Your task to perform on an android device: Open the map Image 0: 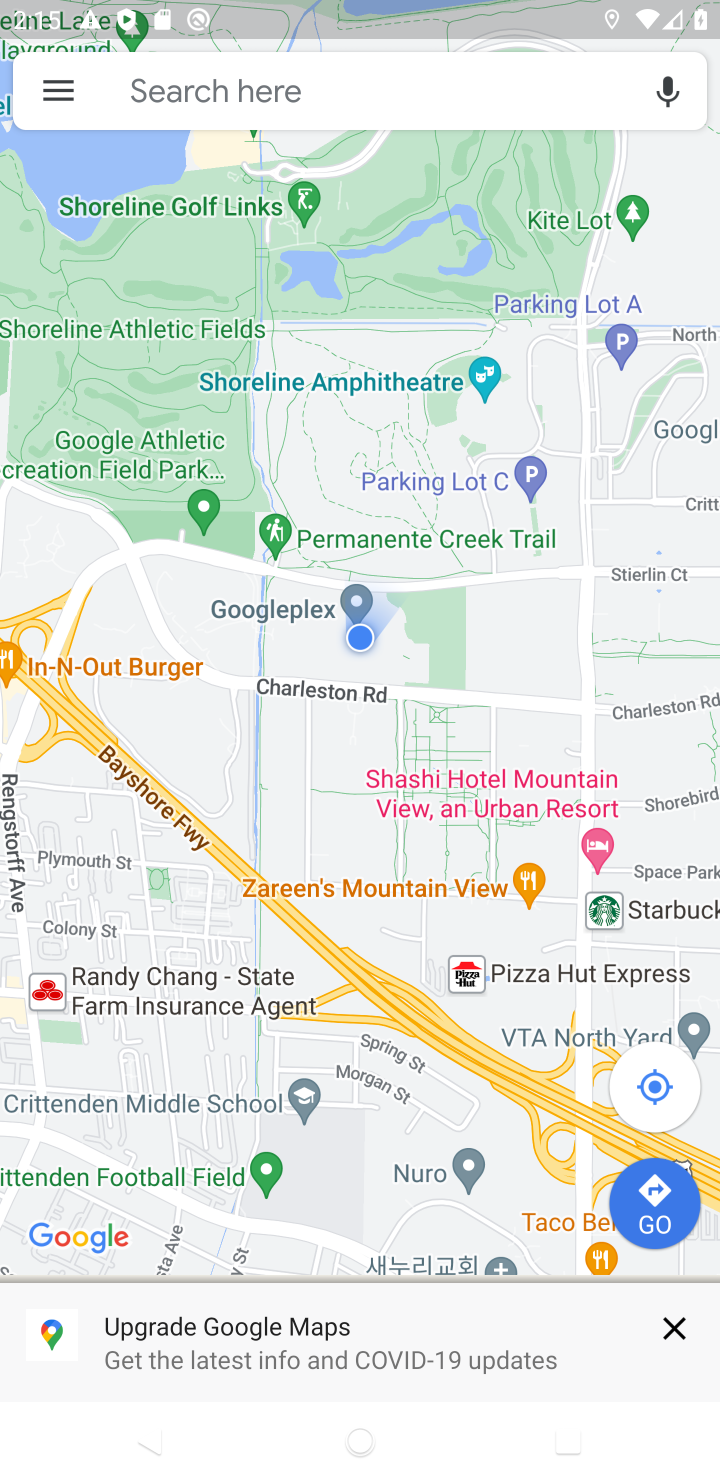
Step 0: click (391, 782)
Your task to perform on an android device: Open the map Image 1: 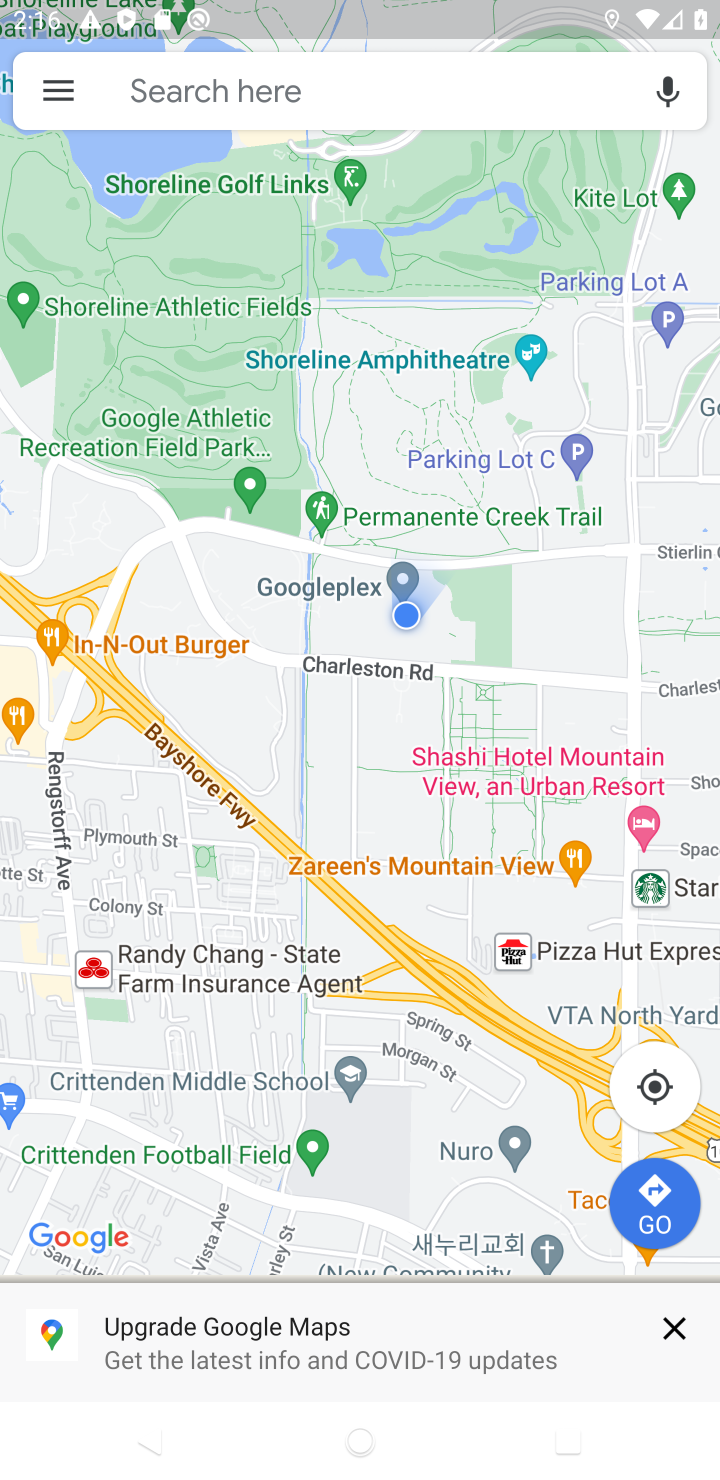
Step 1: task complete